Your task to perform on an android device: open chrome privacy settings Image 0: 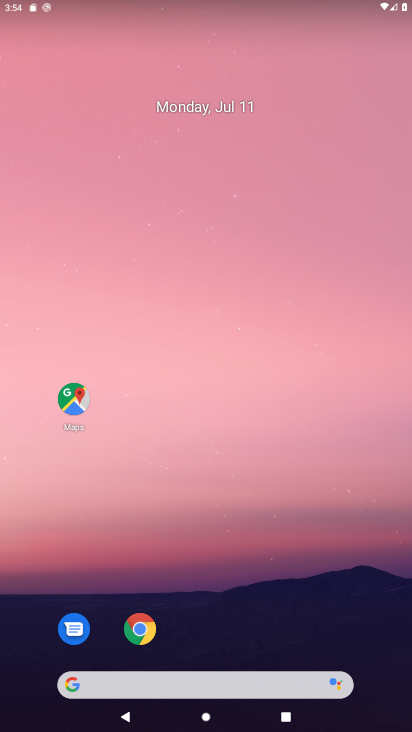
Step 0: click (130, 631)
Your task to perform on an android device: open chrome privacy settings Image 1: 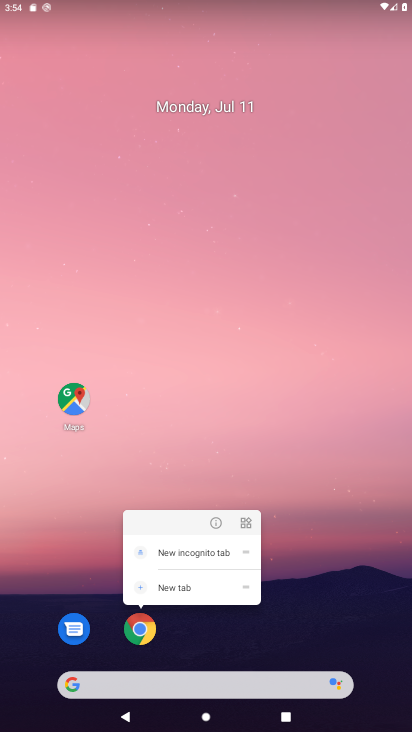
Step 1: click (143, 629)
Your task to perform on an android device: open chrome privacy settings Image 2: 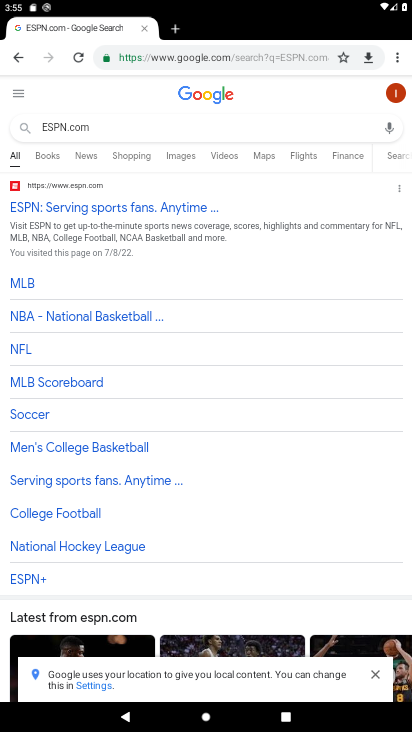
Step 2: click (399, 58)
Your task to perform on an android device: open chrome privacy settings Image 3: 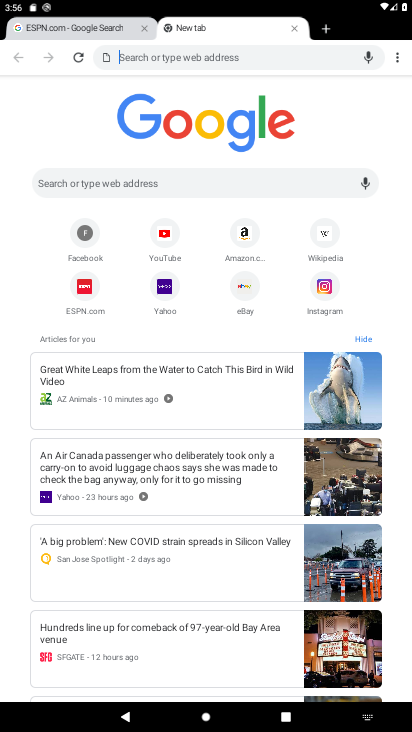
Step 3: click (395, 58)
Your task to perform on an android device: open chrome privacy settings Image 4: 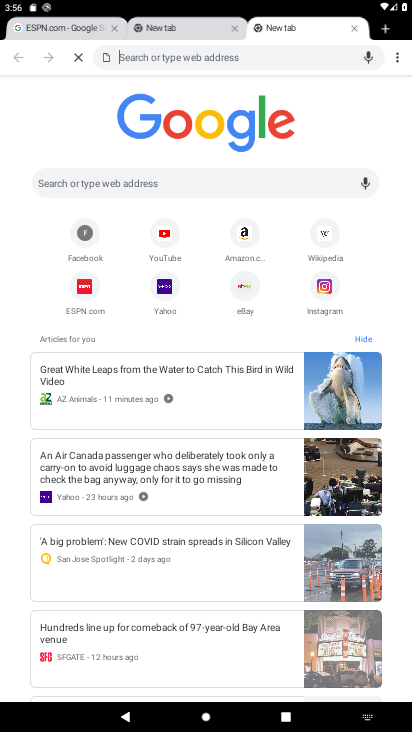
Step 4: click (395, 58)
Your task to perform on an android device: open chrome privacy settings Image 5: 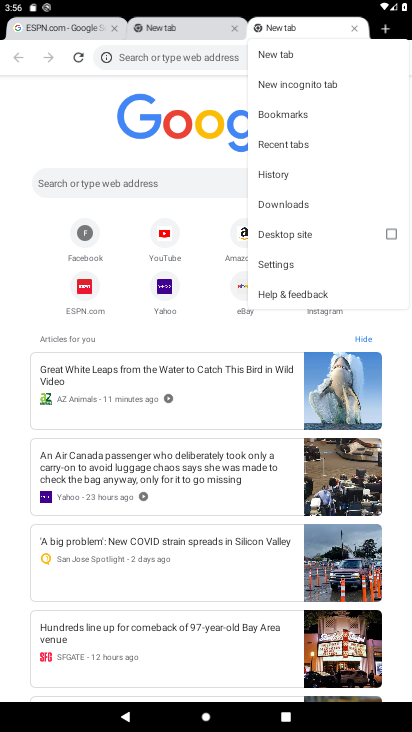
Step 5: click (266, 259)
Your task to perform on an android device: open chrome privacy settings Image 6: 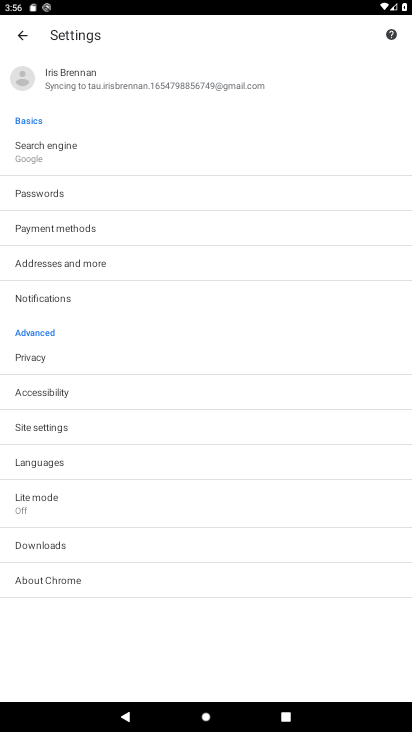
Step 6: click (55, 358)
Your task to perform on an android device: open chrome privacy settings Image 7: 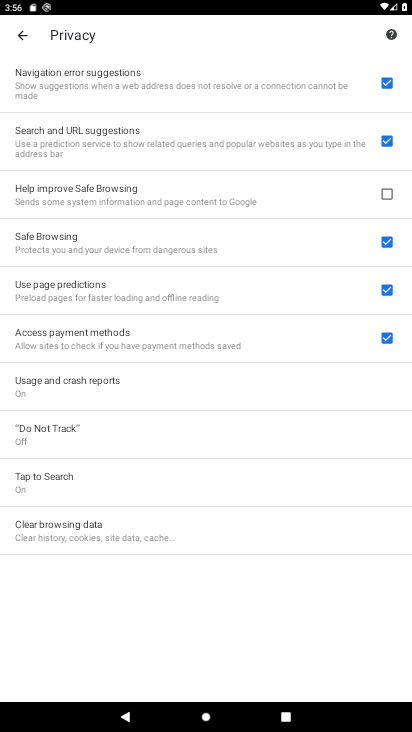
Step 7: task complete